Your task to perform on an android device: check storage Image 0: 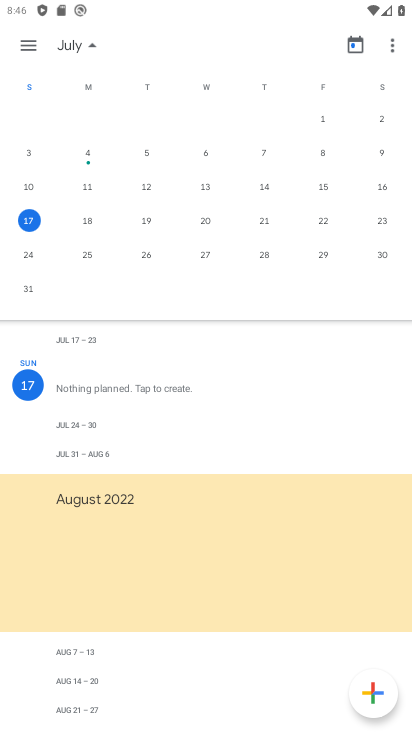
Step 0: press home button
Your task to perform on an android device: check storage Image 1: 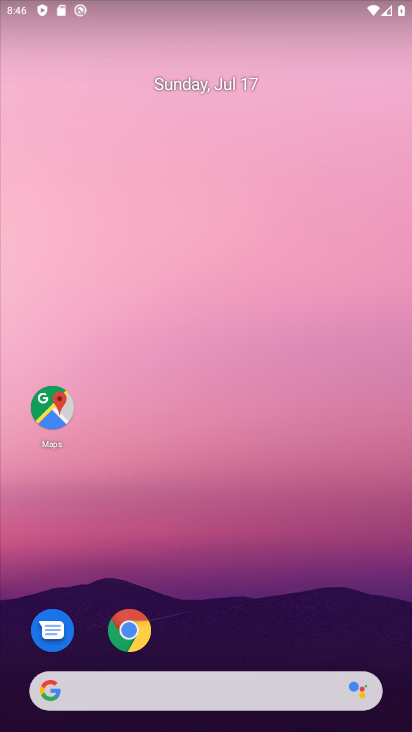
Step 1: drag from (162, 636) to (321, 123)
Your task to perform on an android device: check storage Image 2: 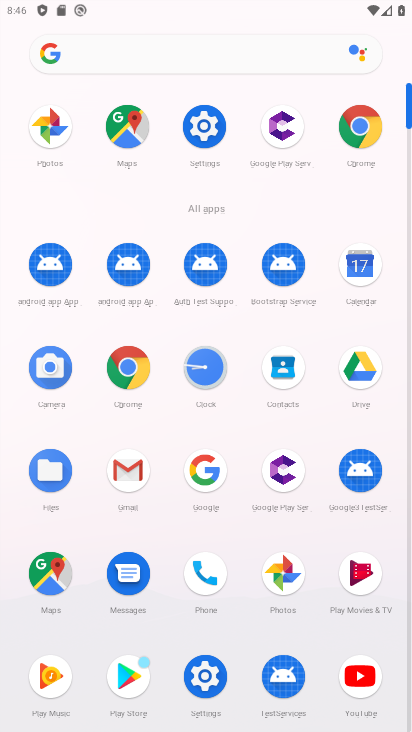
Step 2: click (196, 686)
Your task to perform on an android device: check storage Image 3: 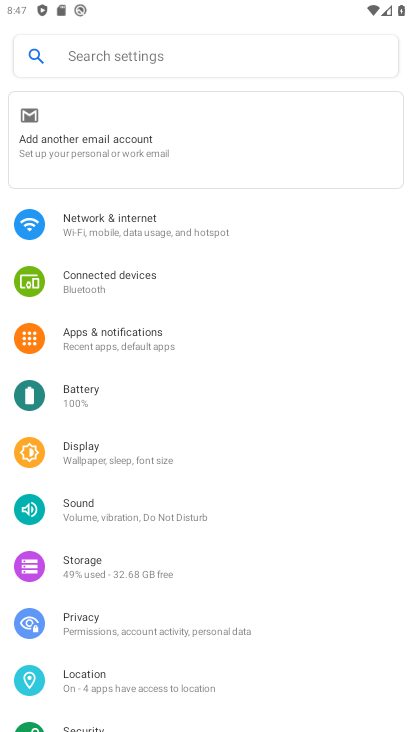
Step 3: drag from (131, 668) to (256, 446)
Your task to perform on an android device: check storage Image 4: 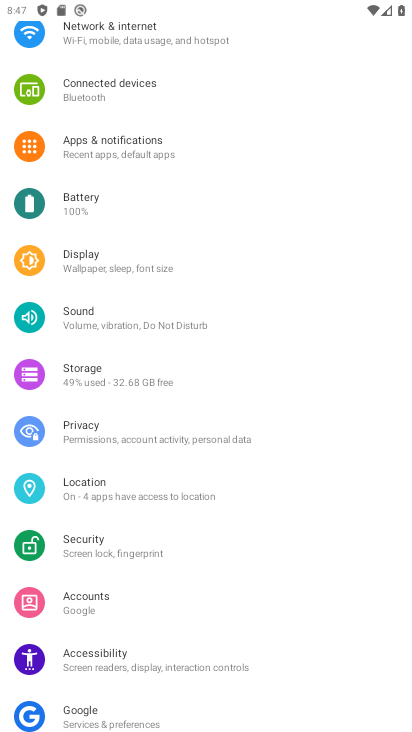
Step 4: click (173, 379)
Your task to perform on an android device: check storage Image 5: 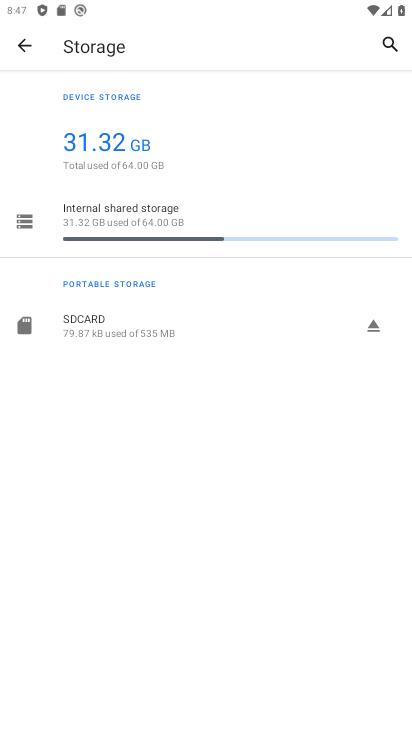
Step 5: task complete